Your task to perform on an android device: Search for Mexican restaurants on Maps Image 0: 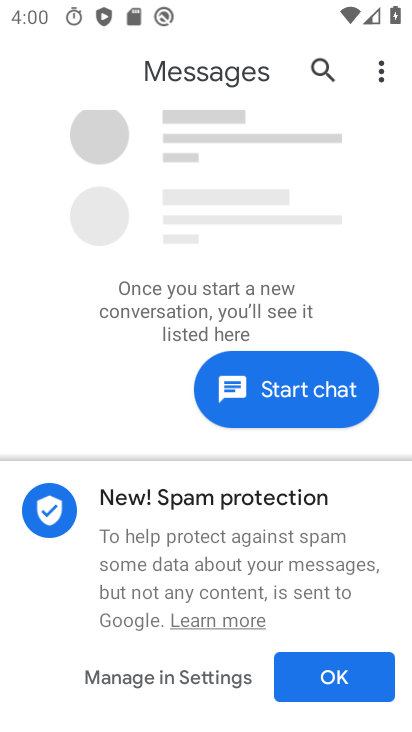
Step 0: press home button
Your task to perform on an android device: Search for Mexican restaurants on Maps Image 1: 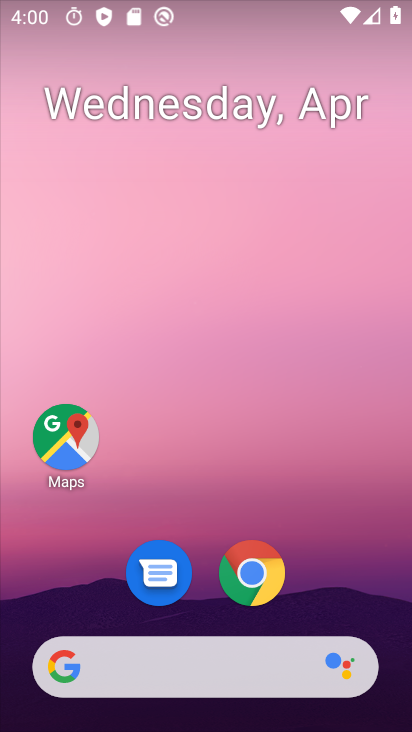
Step 1: click (63, 436)
Your task to perform on an android device: Search for Mexican restaurants on Maps Image 2: 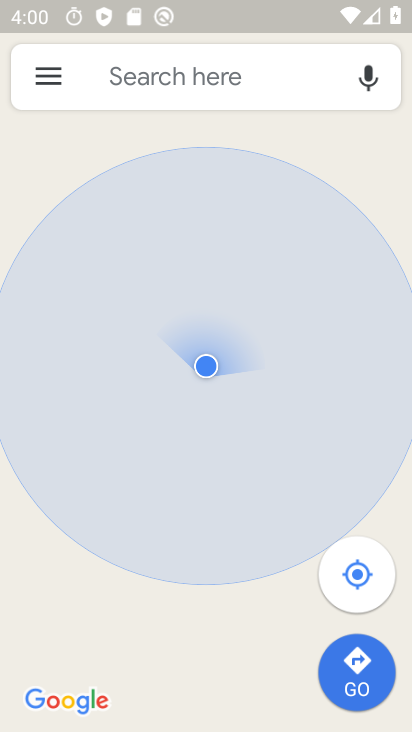
Step 2: click (140, 74)
Your task to perform on an android device: Search for Mexican restaurants on Maps Image 3: 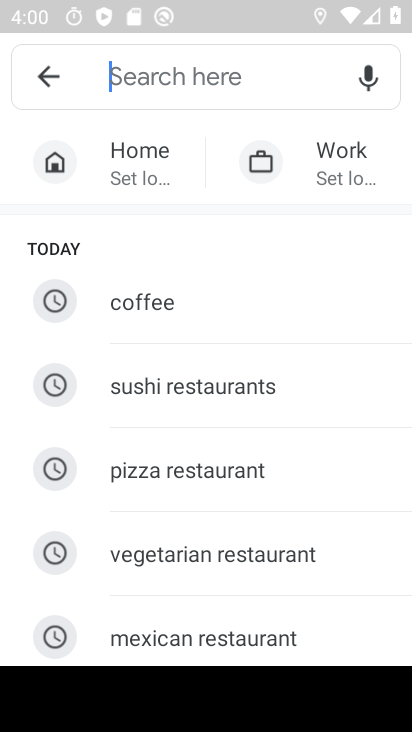
Step 3: type "Mexican restaurants"
Your task to perform on an android device: Search for Mexican restaurants on Maps Image 4: 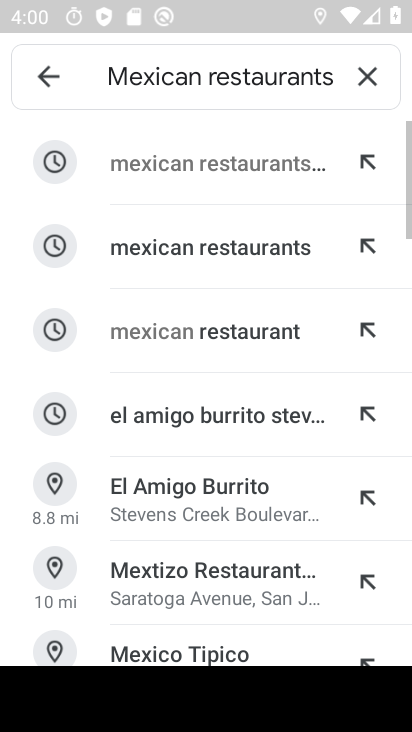
Step 4: click (170, 181)
Your task to perform on an android device: Search for Mexican restaurants on Maps Image 5: 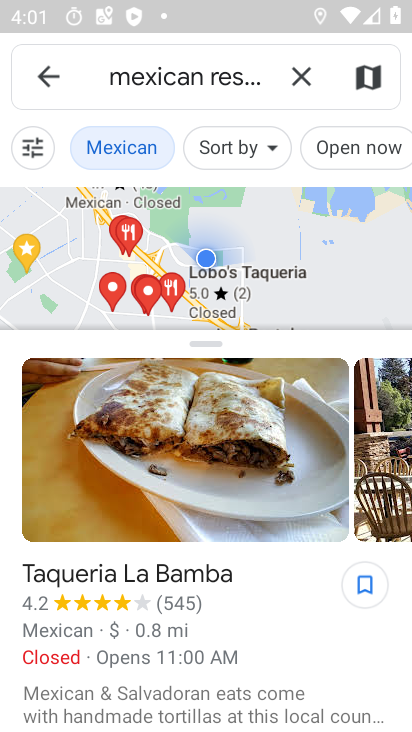
Step 5: task complete